Your task to perform on an android device: open chrome privacy settings Image 0: 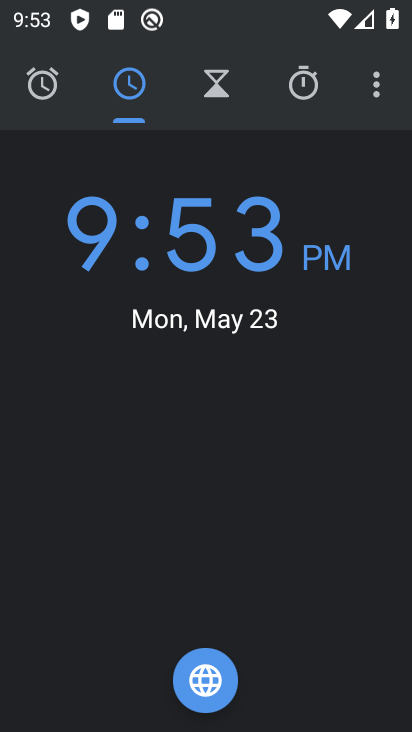
Step 0: press back button
Your task to perform on an android device: open chrome privacy settings Image 1: 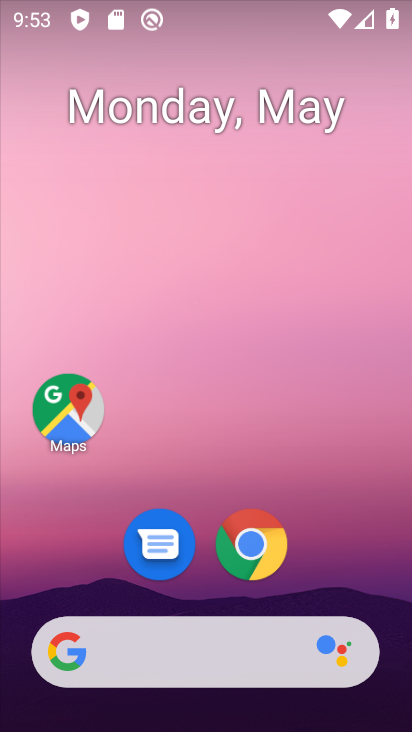
Step 1: drag from (352, 684) to (254, 117)
Your task to perform on an android device: open chrome privacy settings Image 2: 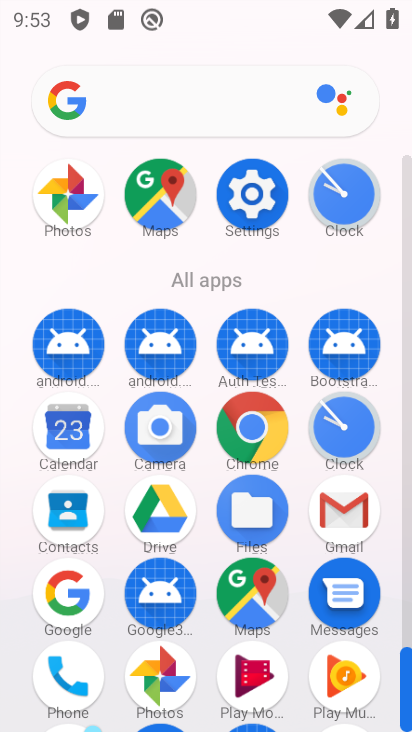
Step 2: click (234, 435)
Your task to perform on an android device: open chrome privacy settings Image 3: 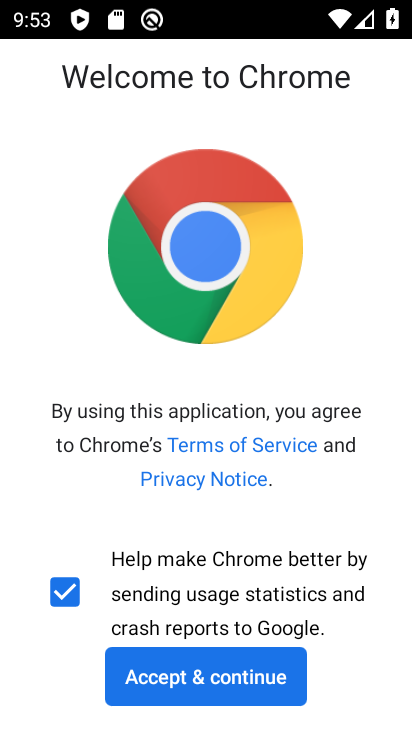
Step 3: click (223, 673)
Your task to perform on an android device: open chrome privacy settings Image 4: 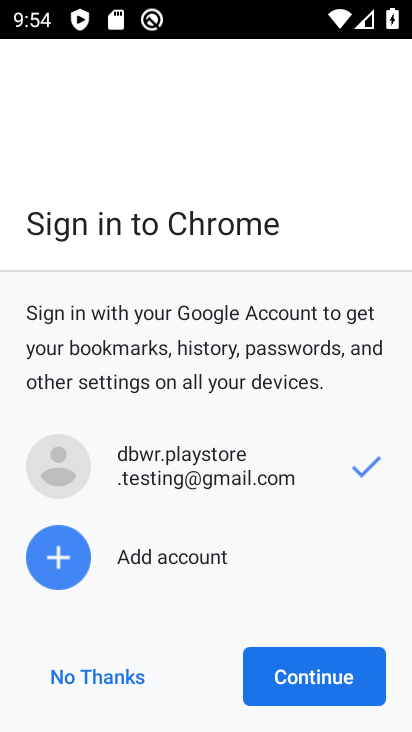
Step 4: click (322, 665)
Your task to perform on an android device: open chrome privacy settings Image 5: 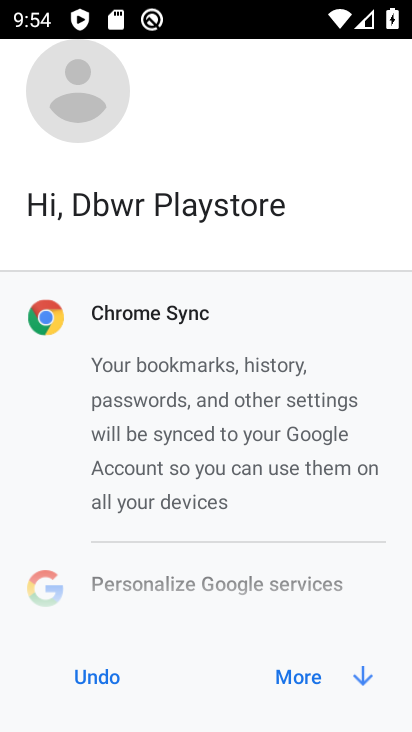
Step 5: click (290, 662)
Your task to perform on an android device: open chrome privacy settings Image 6: 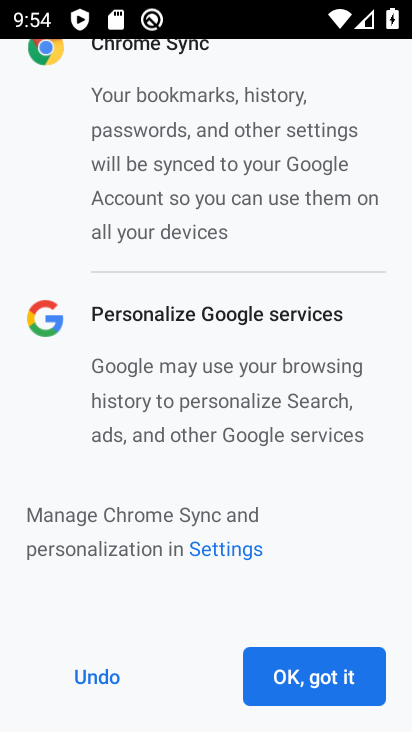
Step 6: click (314, 690)
Your task to perform on an android device: open chrome privacy settings Image 7: 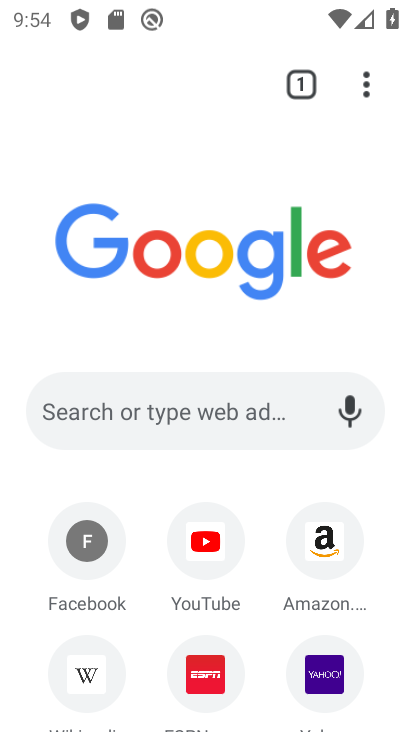
Step 7: drag from (268, 595) to (233, 300)
Your task to perform on an android device: open chrome privacy settings Image 8: 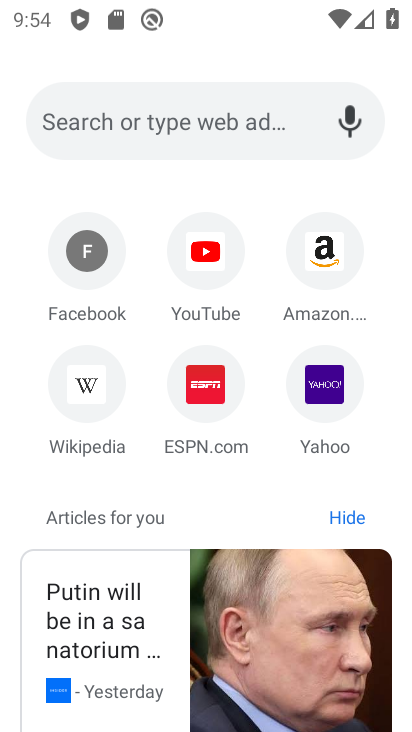
Step 8: press back button
Your task to perform on an android device: open chrome privacy settings Image 9: 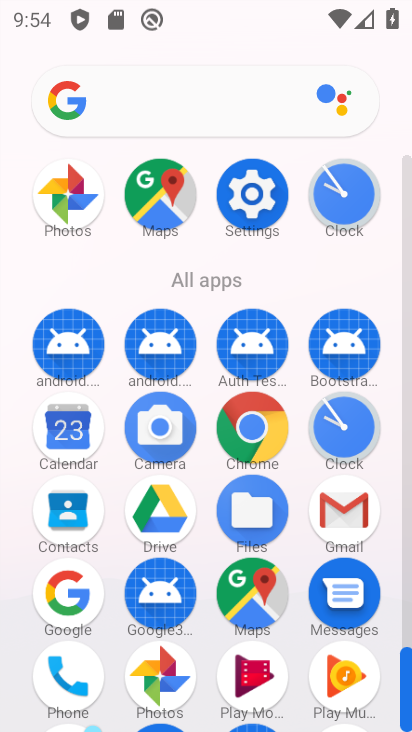
Step 9: click (247, 432)
Your task to perform on an android device: open chrome privacy settings Image 10: 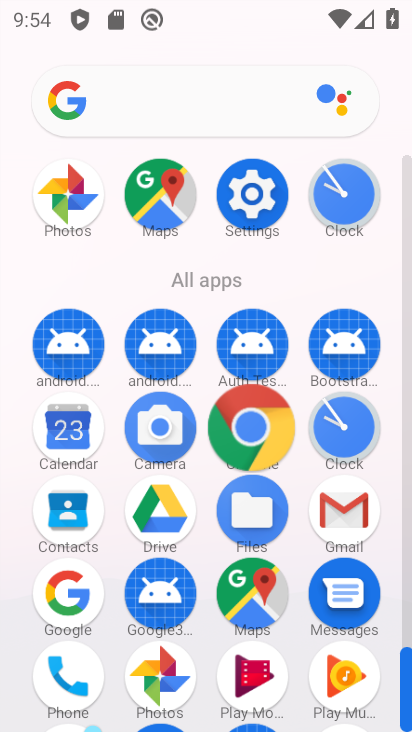
Step 10: click (248, 431)
Your task to perform on an android device: open chrome privacy settings Image 11: 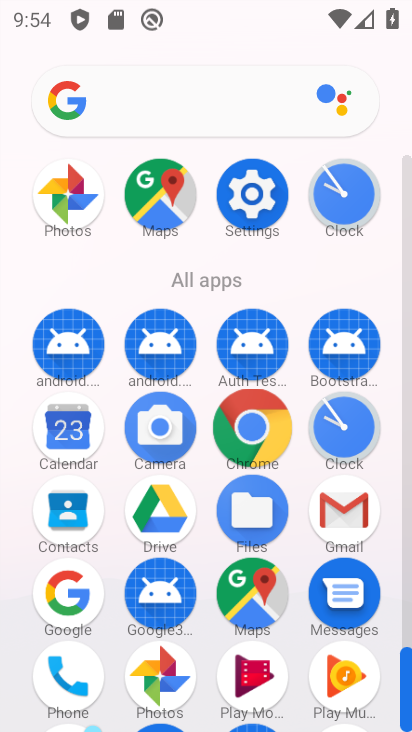
Step 11: click (248, 431)
Your task to perform on an android device: open chrome privacy settings Image 12: 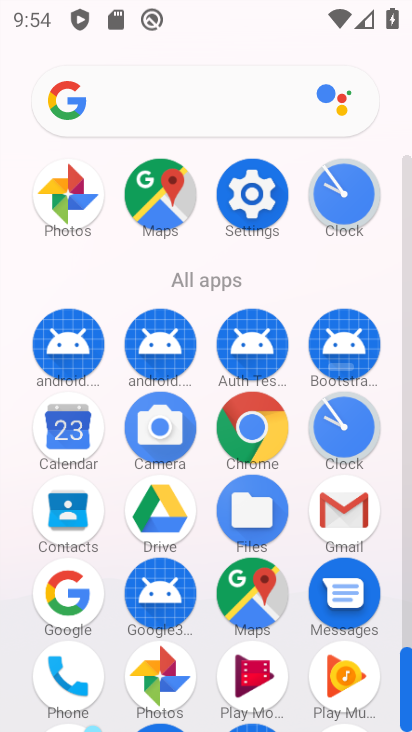
Step 12: click (252, 429)
Your task to perform on an android device: open chrome privacy settings Image 13: 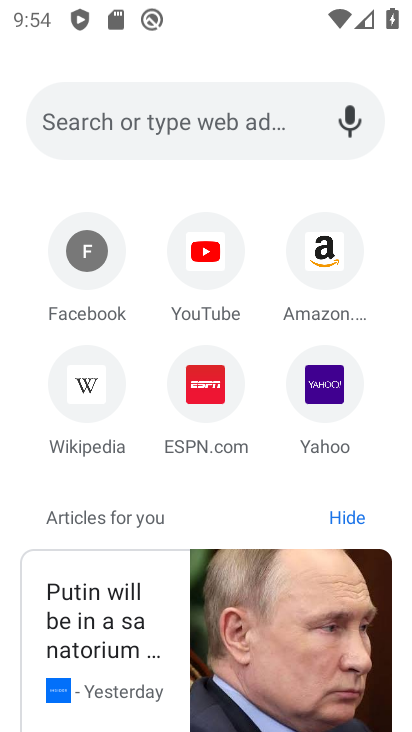
Step 13: drag from (245, 199) to (280, 479)
Your task to perform on an android device: open chrome privacy settings Image 14: 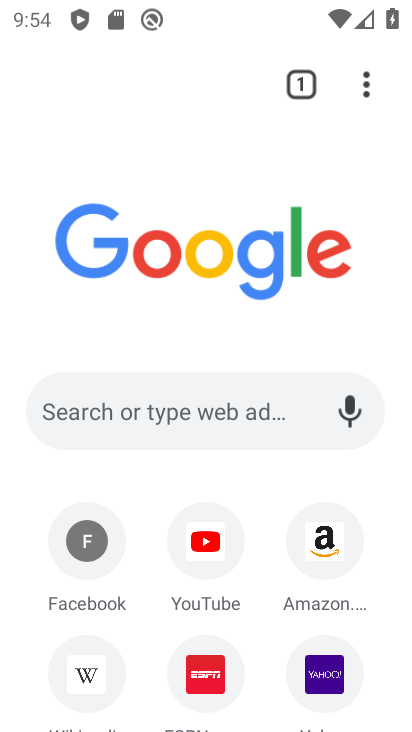
Step 14: drag from (365, 83) to (68, 610)
Your task to perform on an android device: open chrome privacy settings Image 15: 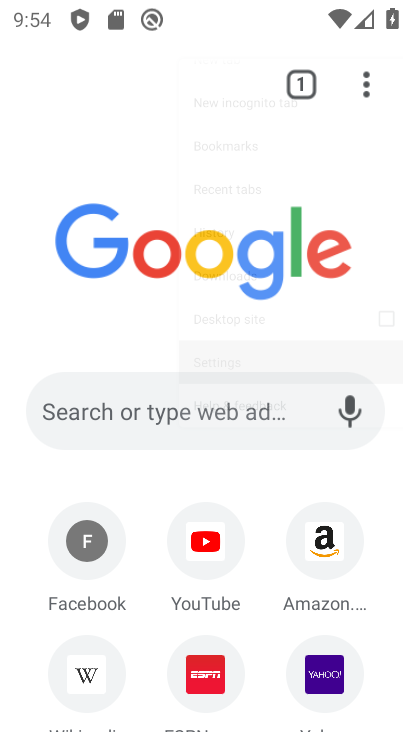
Step 15: click (68, 607)
Your task to perform on an android device: open chrome privacy settings Image 16: 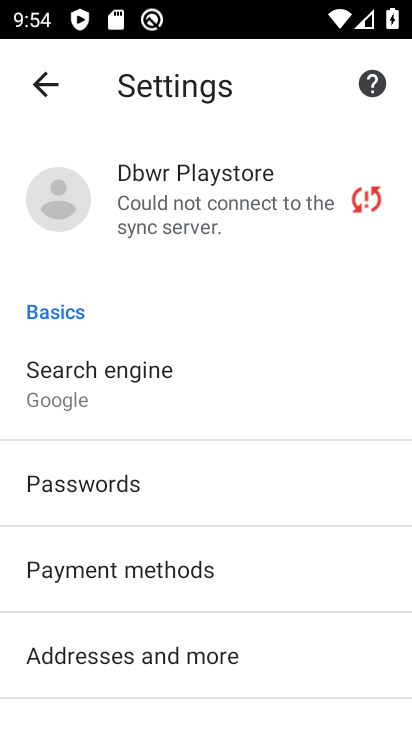
Step 16: drag from (107, 540) to (30, 203)
Your task to perform on an android device: open chrome privacy settings Image 17: 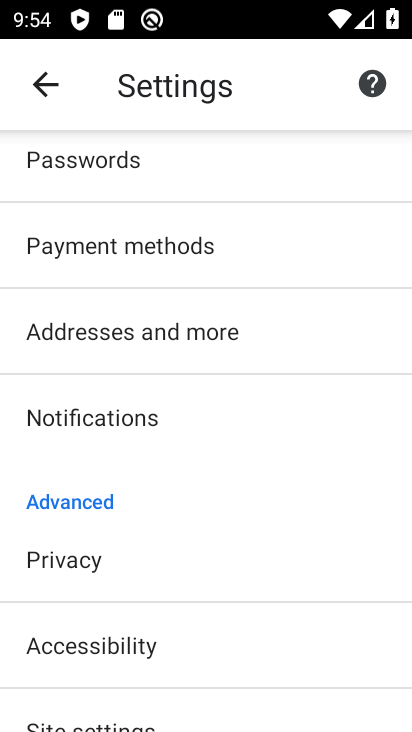
Step 17: click (63, 555)
Your task to perform on an android device: open chrome privacy settings Image 18: 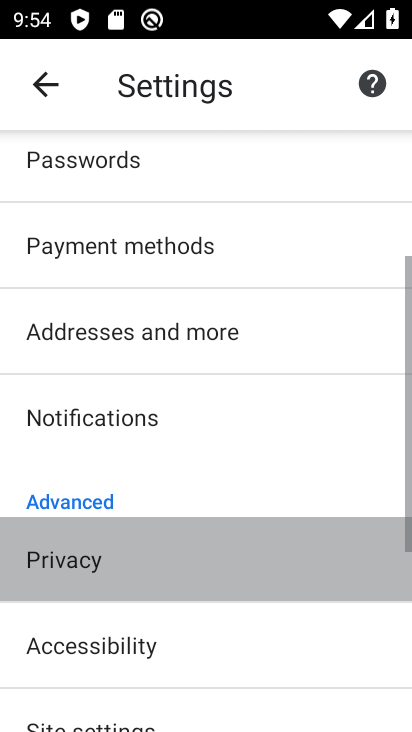
Step 18: click (63, 555)
Your task to perform on an android device: open chrome privacy settings Image 19: 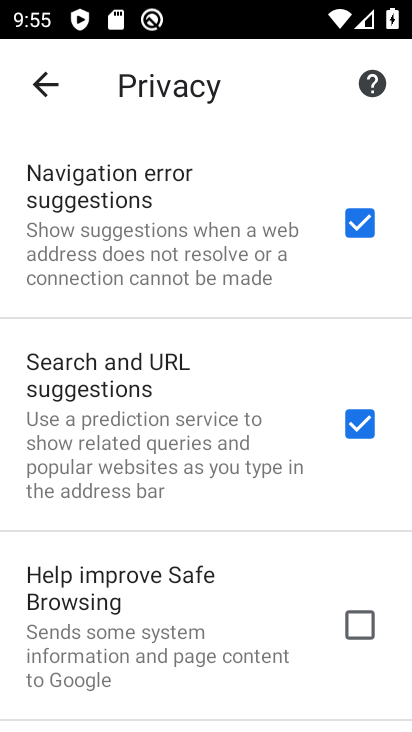
Step 19: drag from (214, 643) to (198, 108)
Your task to perform on an android device: open chrome privacy settings Image 20: 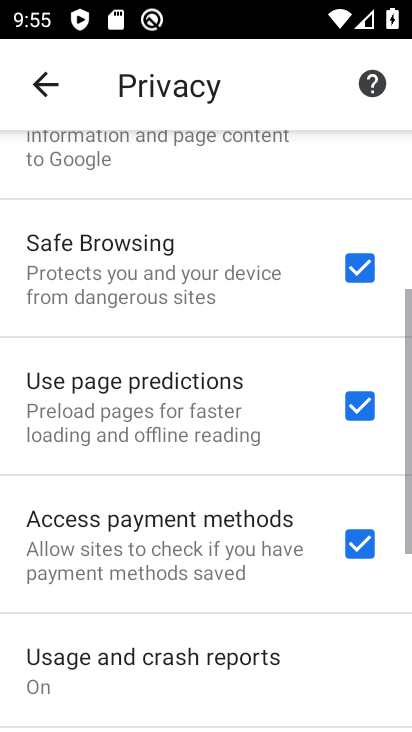
Step 20: drag from (258, 562) to (208, 89)
Your task to perform on an android device: open chrome privacy settings Image 21: 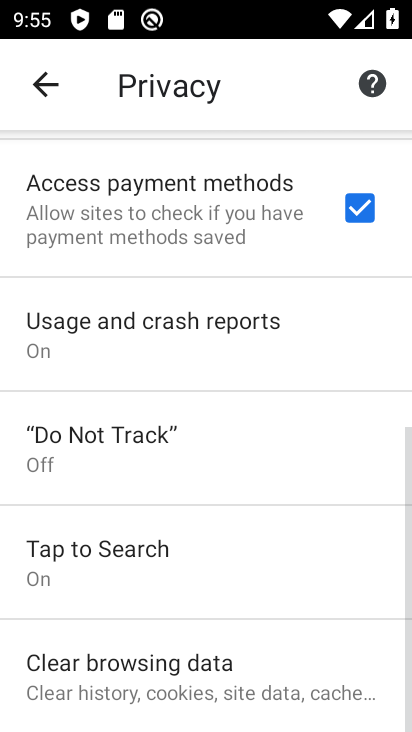
Step 21: click (162, 573)
Your task to perform on an android device: open chrome privacy settings Image 22: 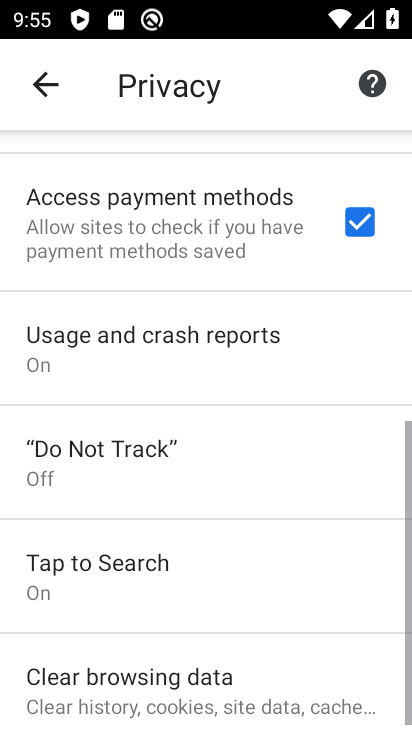
Step 22: click (161, 607)
Your task to perform on an android device: open chrome privacy settings Image 23: 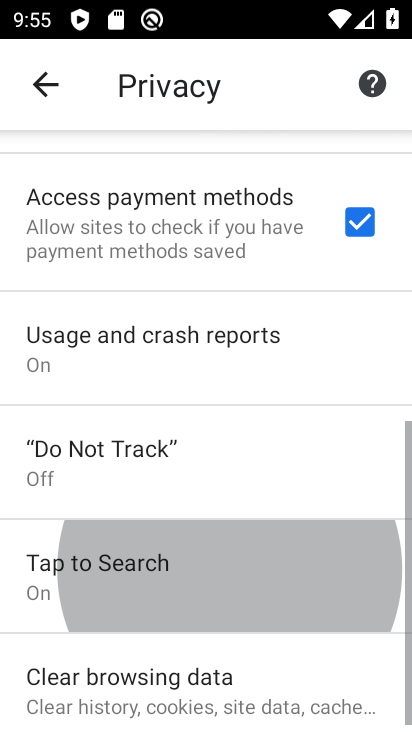
Step 23: drag from (160, 303) to (179, 623)
Your task to perform on an android device: open chrome privacy settings Image 24: 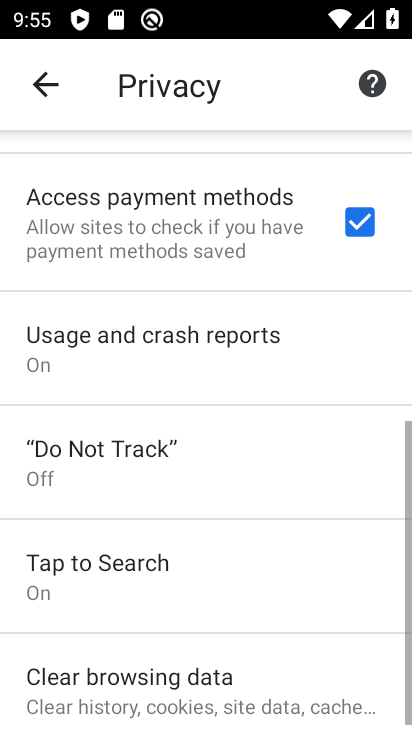
Step 24: drag from (138, 314) to (210, 718)
Your task to perform on an android device: open chrome privacy settings Image 25: 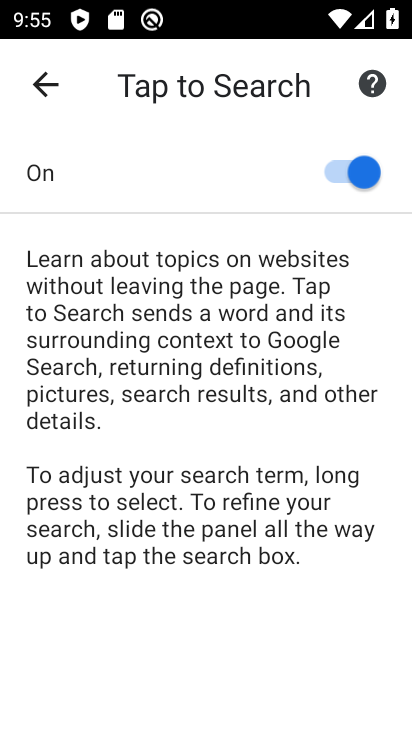
Step 25: drag from (142, 317) to (200, 575)
Your task to perform on an android device: open chrome privacy settings Image 26: 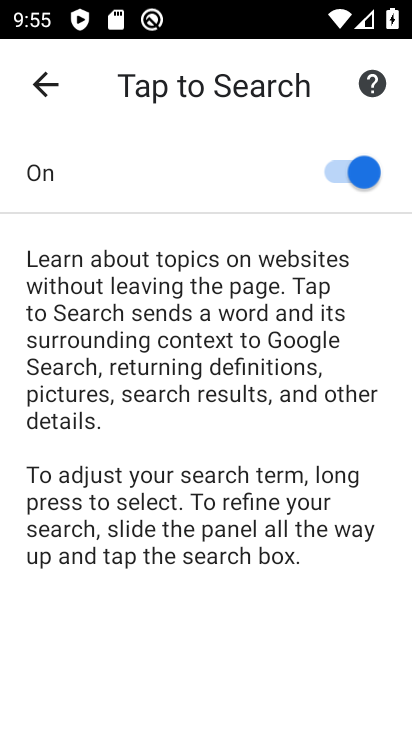
Step 26: drag from (123, 279) to (144, 439)
Your task to perform on an android device: open chrome privacy settings Image 27: 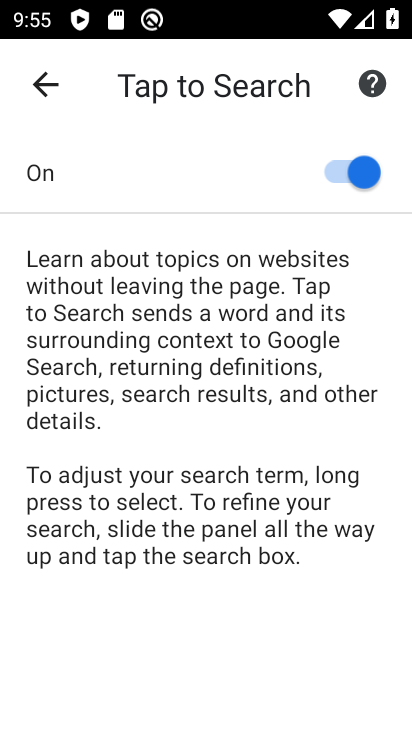
Step 27: click (40, 71)
Your task to perform on an android device: open chrome privacy settings Image 28: 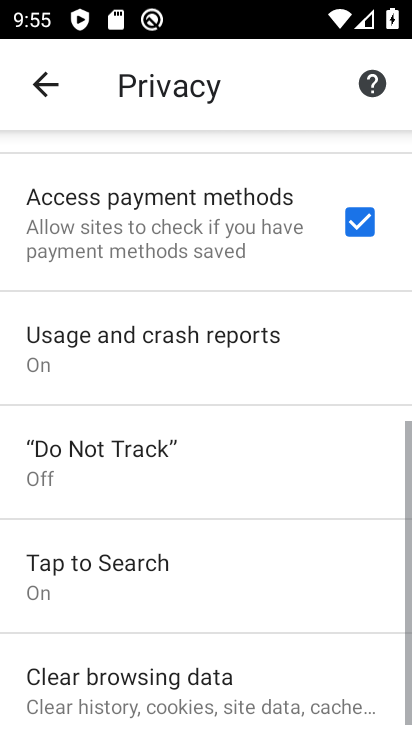
Step 28: click (40, 71)
Your task to perform on an android device: open chrome privacy settings Image 29: 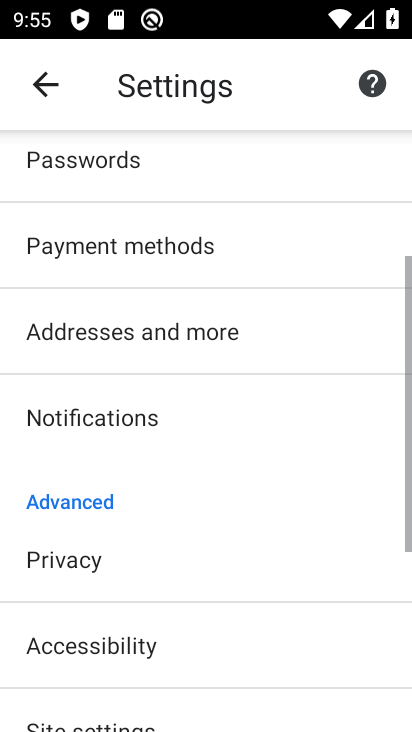
Step 29: task complete